Your task to perform on an android device: toggle data saver in the chrome app Image 0: 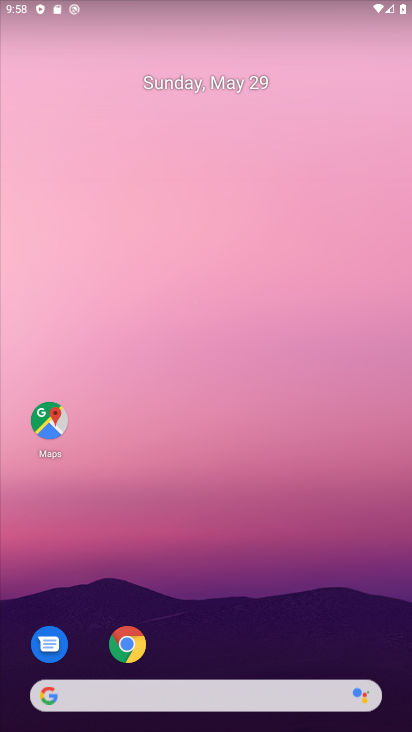
Step 0: click (135, 640)
Your task to perform on an android device: toggle data saver in the chrome app Image 1: 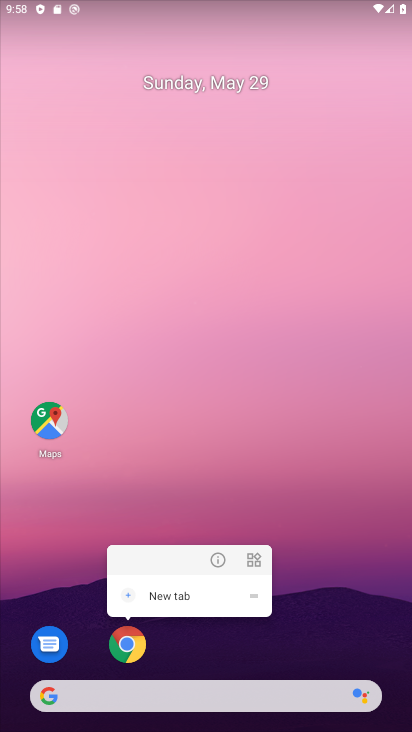
Step 1: click (128, 637)
Your task to perform on an android device: toggle data saver in the chrome app Image 2: 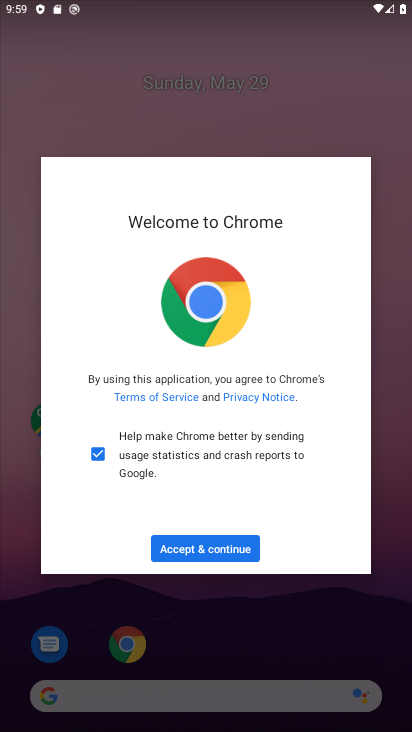
Step 2: click (230, 557)
Your task to perform on an android device: toggle data saver in the chrome app Image 3: 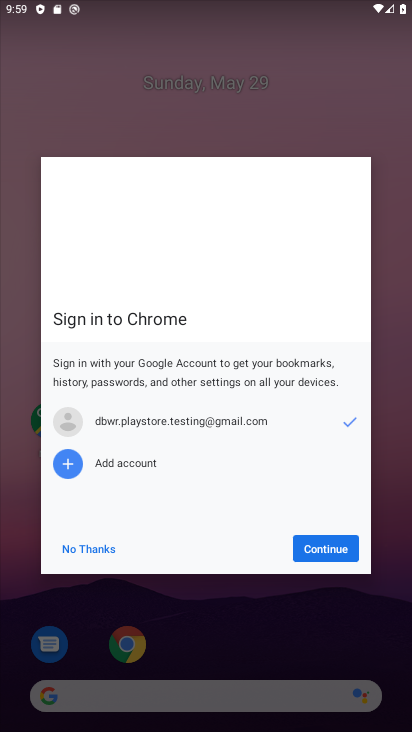
Step 3: click (346, 558)
Your task to perform on an android device: toggle data saver in the chrome app Image 4: 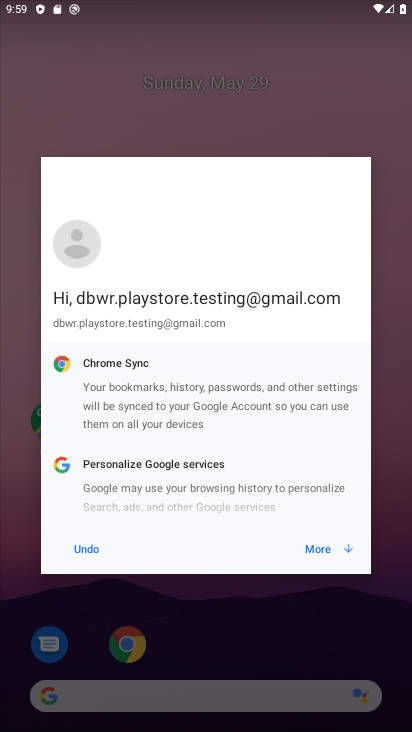
Step 4: click (311, 558)
Your task to perform on an android device: toggle data saver in the chrome app Image 5: 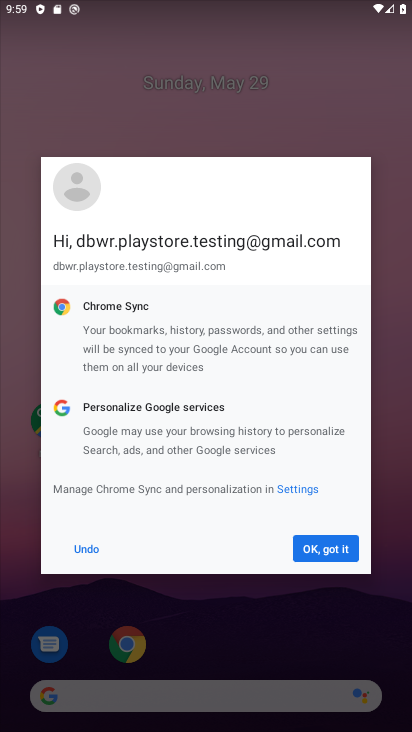
Step 5: click (348, 555)
Your task to perform on an android device: toggle data saver in the chrome app Image 6: 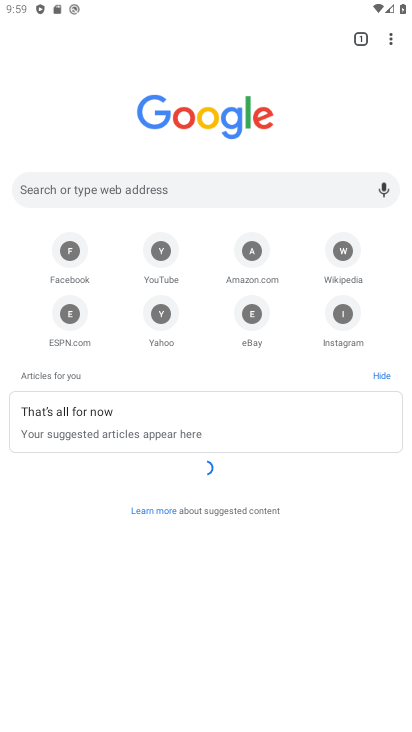
Step 6: drag from (393, 36) to (294, 330)
Your task to perform on an android device: toggle data saver in the chrome app Image 7: 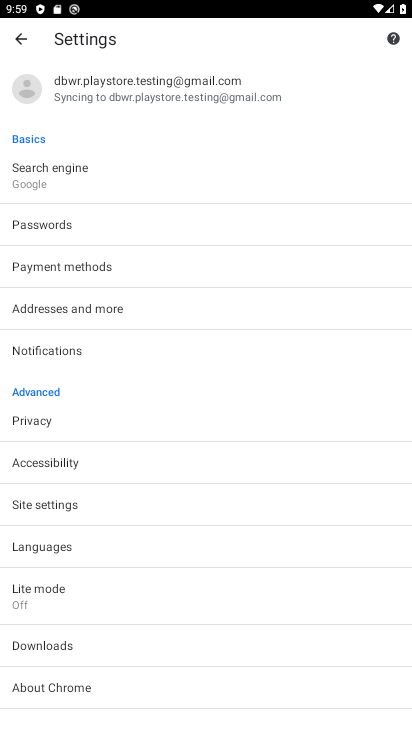
Step 7: click (98, 591)
Your task to perform on an android device: toggle data saver in the chrome app Image 8: 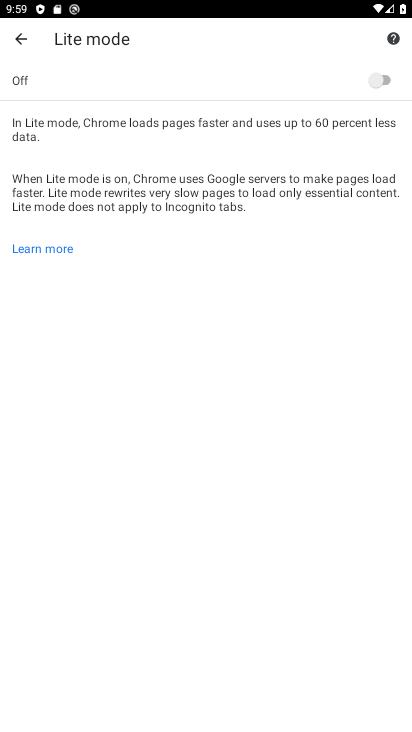
Step 8: click (397, 78)
Your task to perform on an android device: toggle data saver in the chrome app Image 9: 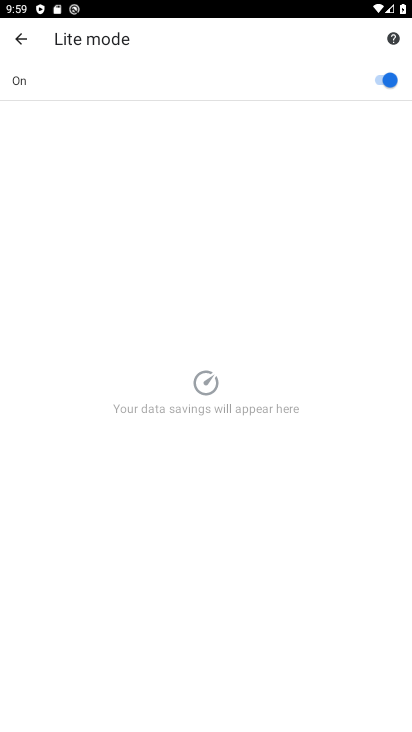
Step 9: task complete